Your task to perform on an android device: turn off translation in the chrome app Image 0: 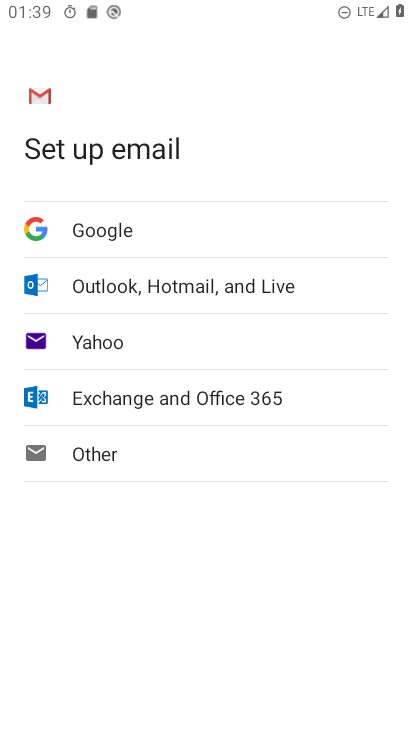
Step 0: press home button
Your task to perform on an android device: turn off translation in the chrome app Image 1: 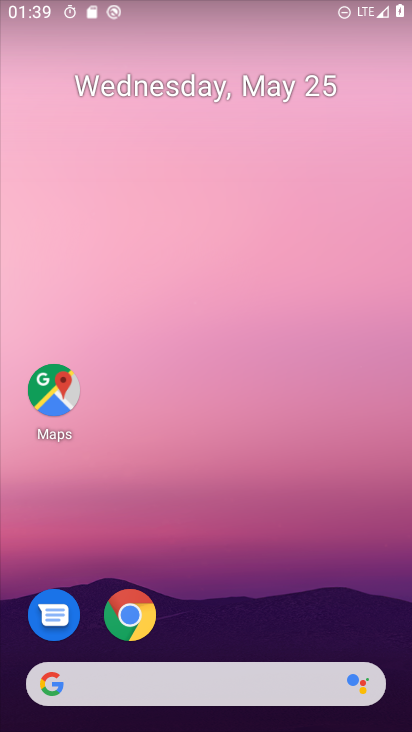
Step 1: drag from (332, 708) to (258, 174)
Your task to perform on an android device: turn off translation in the chrome app Image 2: 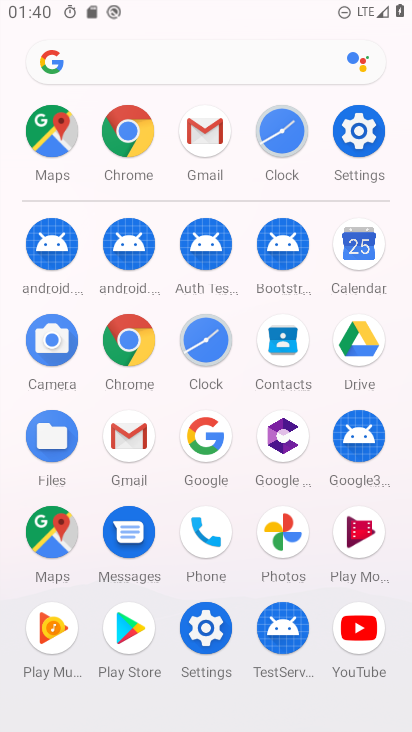
Step 2: click (120, 129)
Your task to perform on an android device: turn off translation in the chrome app Image 3: 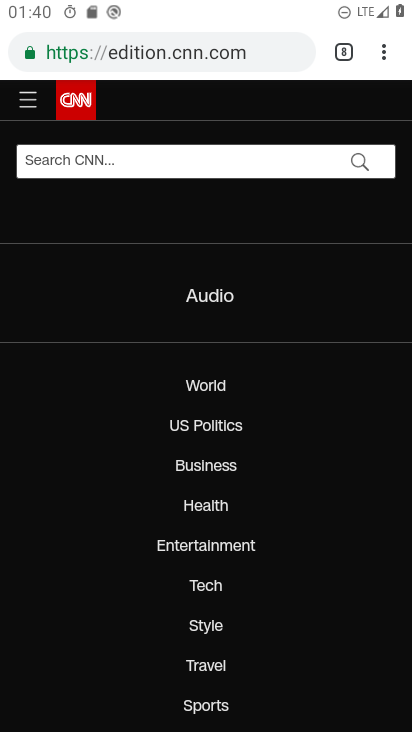
Step 3: click (379, 62)
Your task to perform on an android device: turn off translation in the chrome app Image 4: 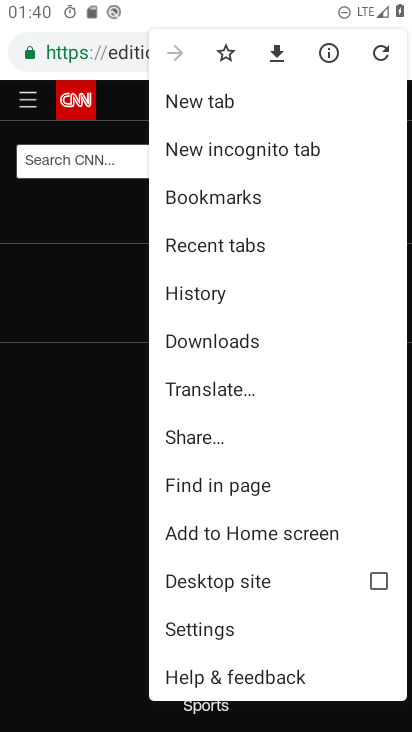
Step 4: click (214, 635)
Your task to perform on an android device: turn off translation in the chrome app Image 5: 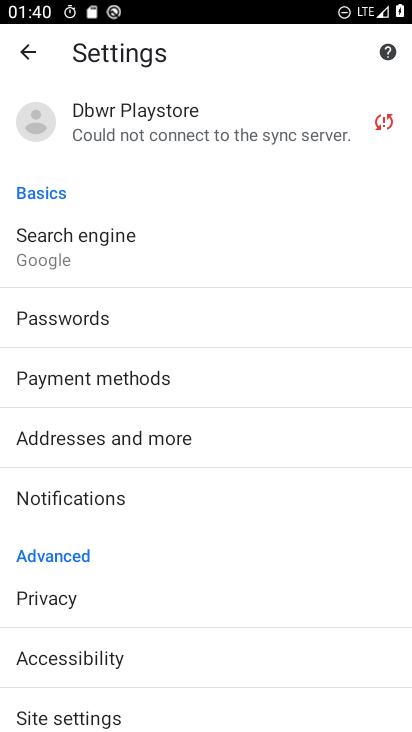
Step 5: drag from (201, 637) to (244, 345)
Your task to perform on an android device: turn off translation in the chrome app Image 6: 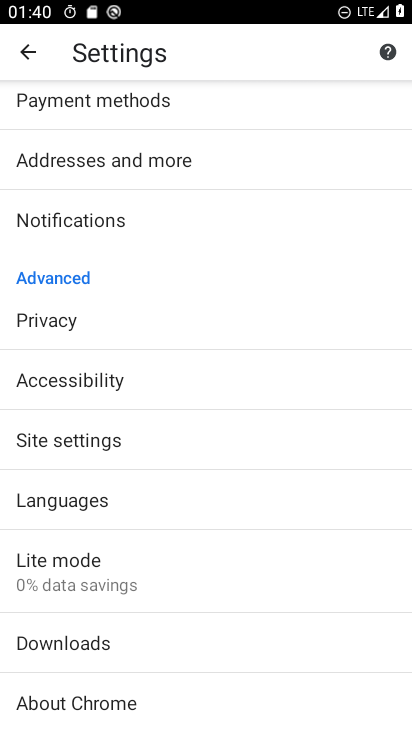
Step 6: click (54, 505)
Your task to perform on an android device: turn off translation in the chrome app Image 7: 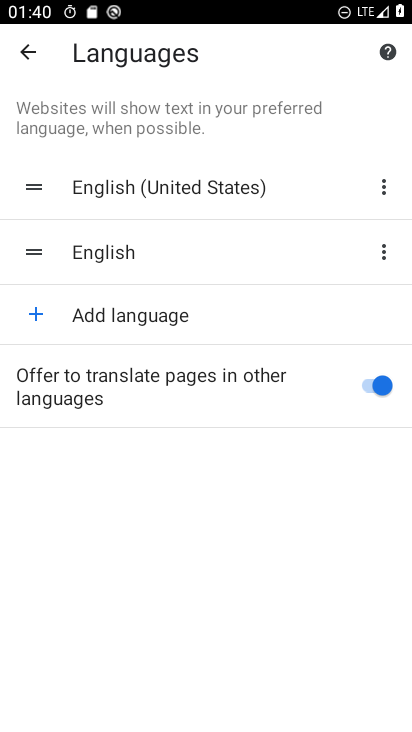
Step 7: click (371, 379)
Your task to perform on an android device: turn off translation in the chrome app Image 8: 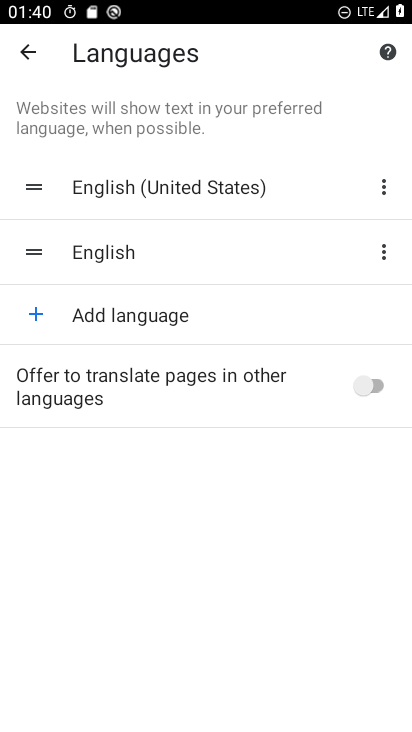
Step 8: task complete